Your task to perform on an android device: Open display settings Image 0: 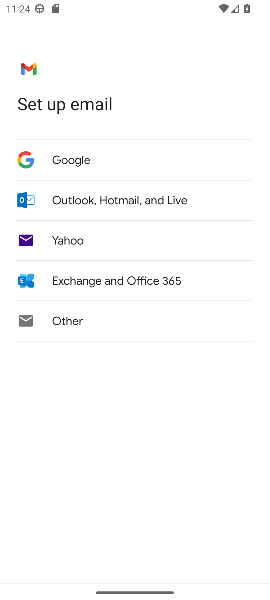
Step 0: press home button
Your task to perform on an android device: Open display settings Image 1: 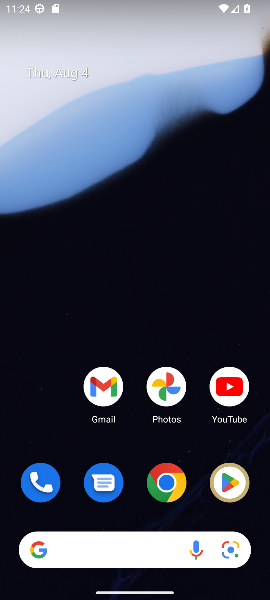
Step 1: drag from (139, 442) to (138, 58)
Your task to perform on an android device: Open display settings Image 2: 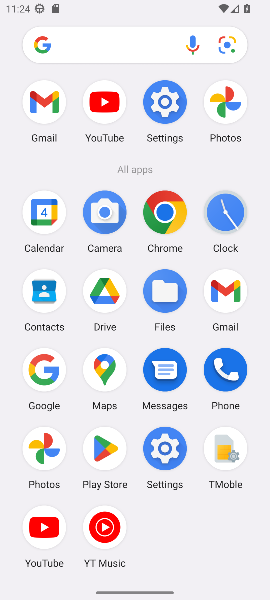
Step 2: click (166, 123)
Your task to perform on an android device: Open display settings Image 3: 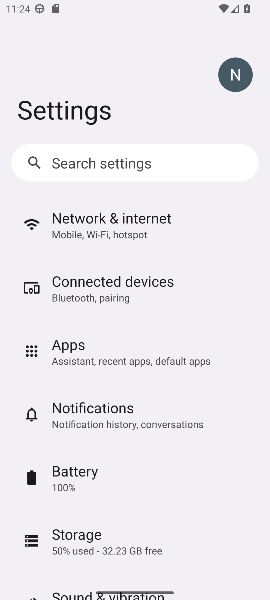
Step 3: drag from (121, 474) to (125, 287)
Your task to perform on an android device: Open display settings Image 4: 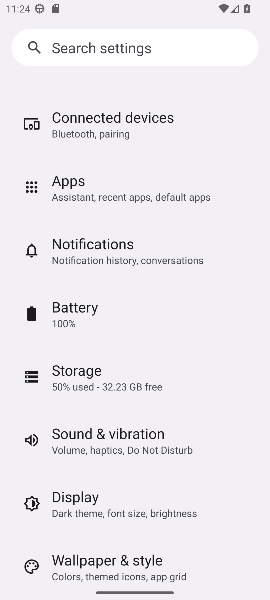
Step 4: click (94, 494)
Your task to perform on an android device: Open display settings Image 5: 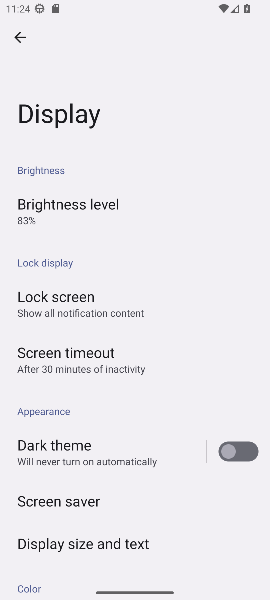
Step 5: task complete